Your task to perform on an android device: toggle data saver in the chrome app Image 0: 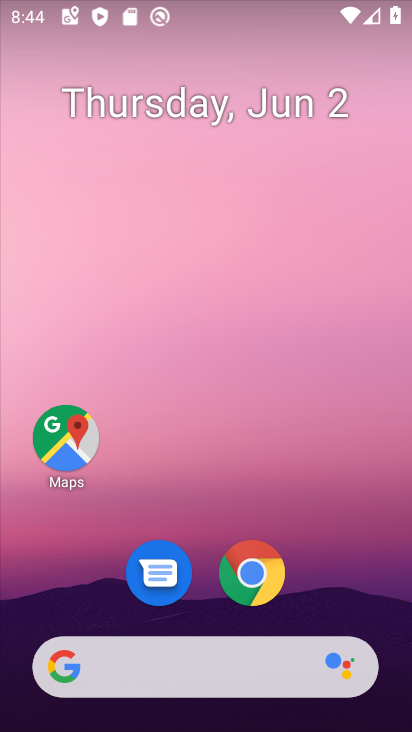
Step 0: press home button
Your task to perform on an android device: toggle data saver in the chrome app Image 1: 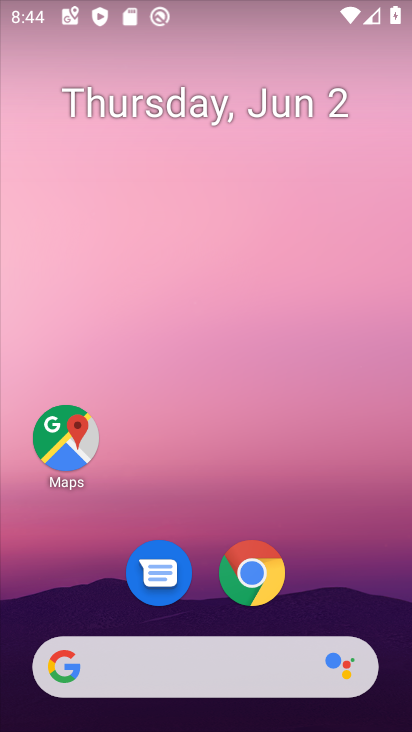
Step 1: click (255, 567)
Your task to perform on an android device: toggle data saver in the chrome app Image 2: 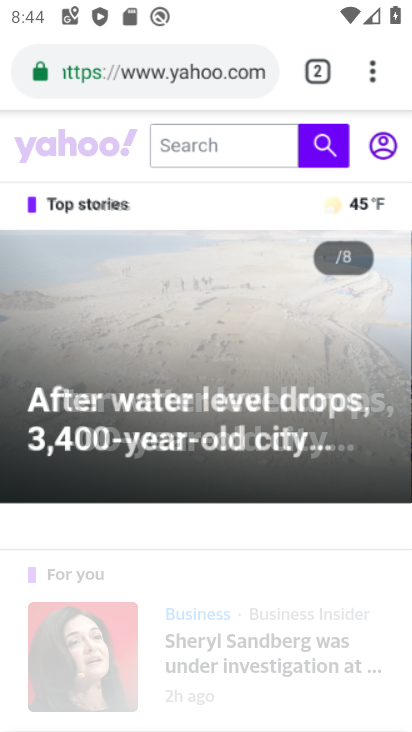
Step 2: click (371, 62)
Your task to perform on an android device: toggle data saver in the chrome app Image 3: 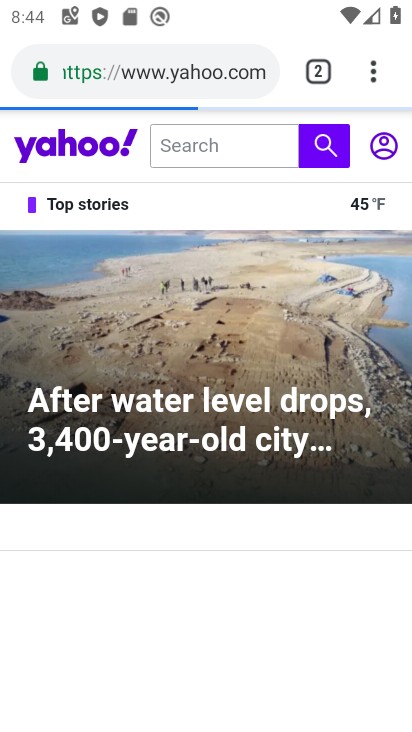
Step 3: drag from (371, 68) to (163, 568)
Your task to perform on an android device: toggle data saver in the chrome app Image 4: 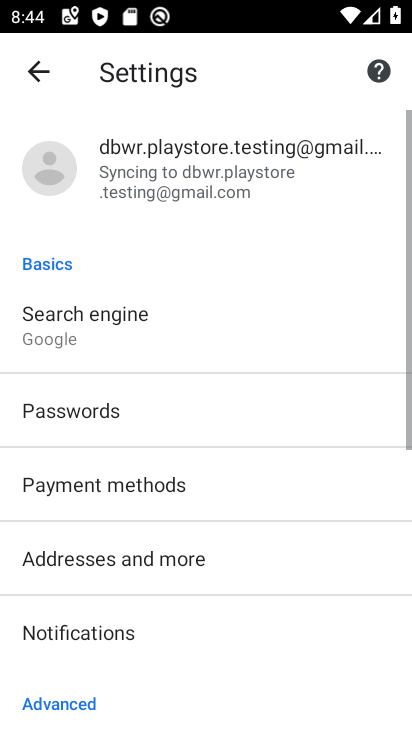
Step 4: drag from (181, 630) to (322, 1)
Your task to perform on an android device: toggle data saver in the chrome app Image 5: 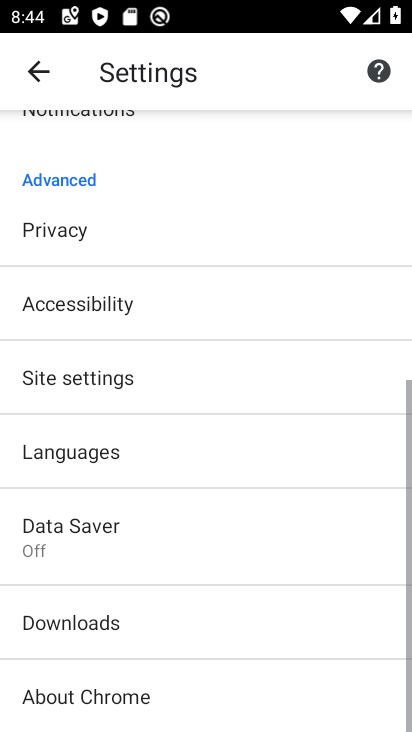
Step 5: drag from (322, 523) to (327, 239)
Your task to perform on an android device: toggle data saver in the chrome app Image 6: 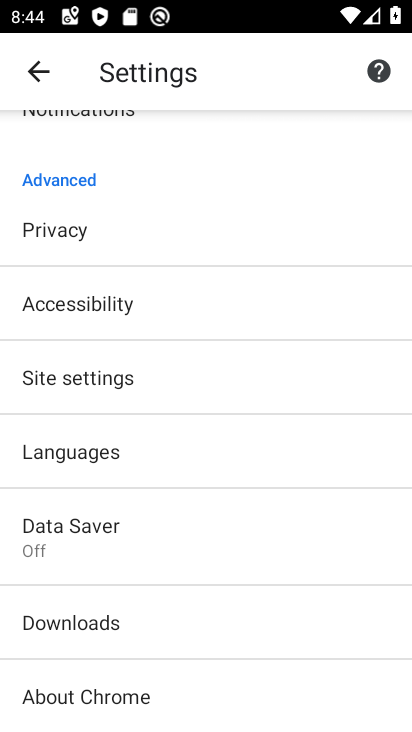
Step 6: drag from (151, 521) to (185, 294)
Your task to perform on an android device: toggle data saver in the chrome app Image 7: 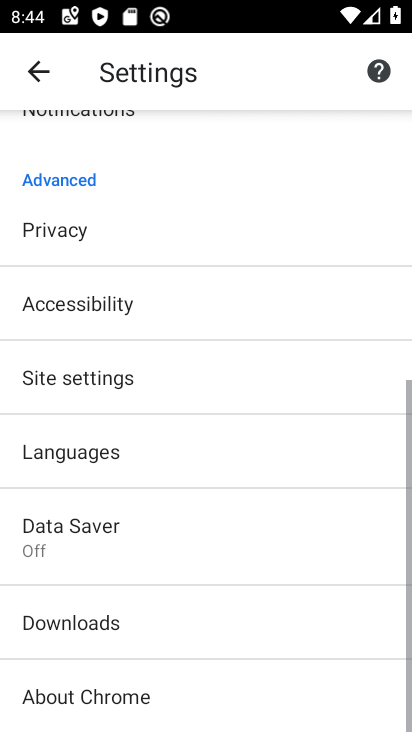
Step 7: click (159, 543)
Your task to perform on an android device: toggle data saver in the chrome app Image 8: 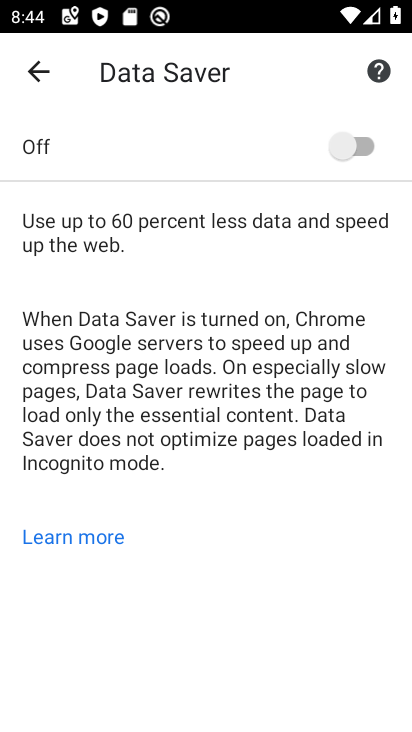
Step 8: click (338, 156)
Your task to perform on an android device: toggle data saver in the chrome app Image 9: 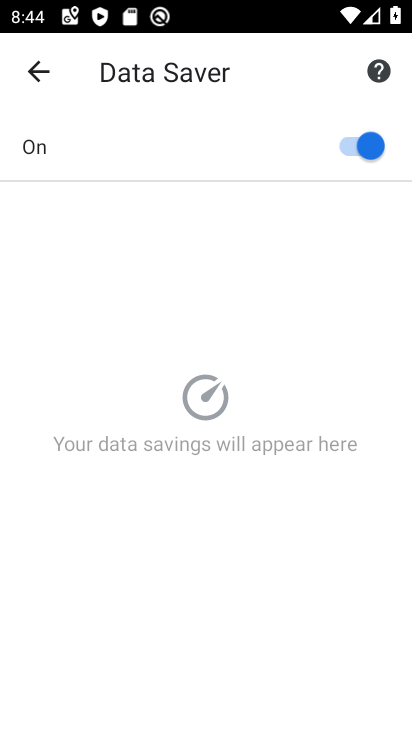
Step 9: task complete